Your task to perform on an android device: Open Chrome and go to settings Image 0: 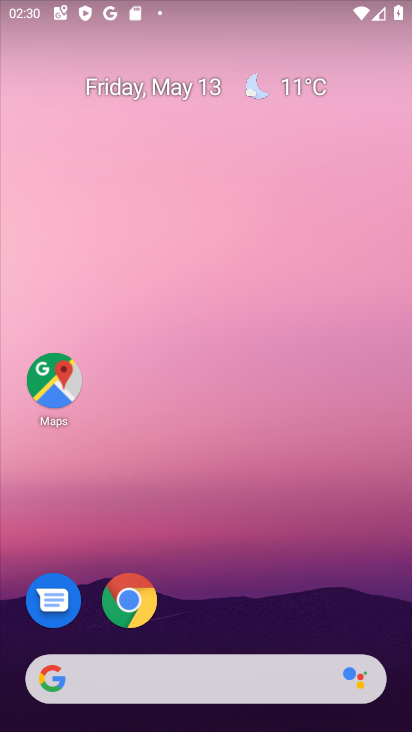
Step 0: drag from (198, 610) to (254, 180)
Your task to perform on an android device: Open Chrome and go to settings Image 1: 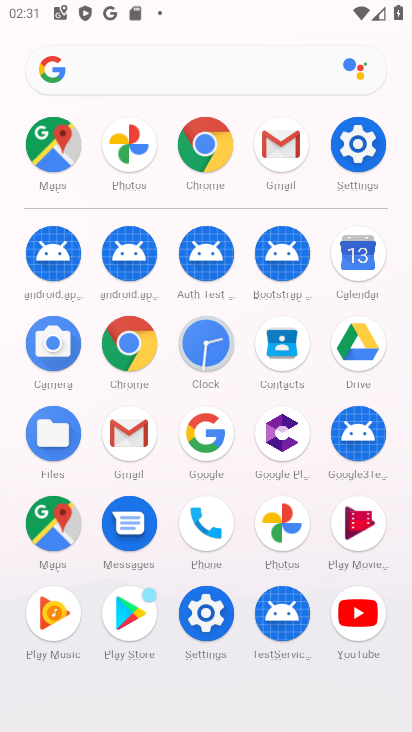
Step 1: click (210, 140)
Your task to perform on an android device: Open Chrome and go to settings Image 2: 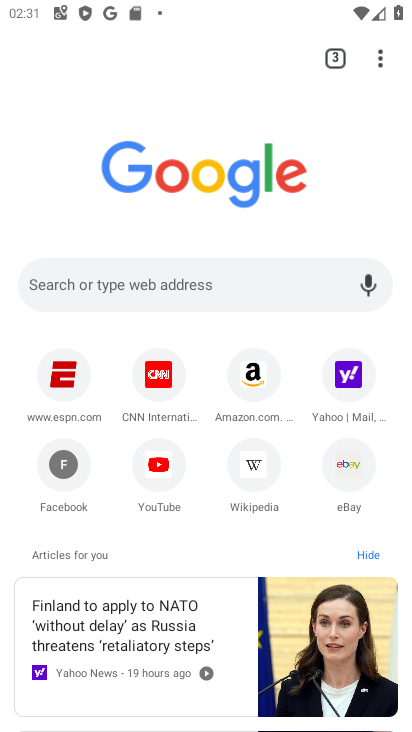
Step 2: task complete